Your task to perform on an android device: turn off notifications settings in the gmail app Image 0: 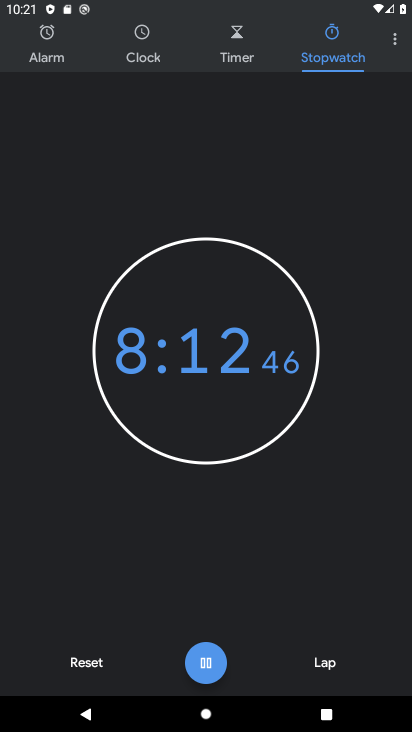
Step 0: press home button
Your task to perform on an android device: turn off notifications settings in the gmail app Image 1: 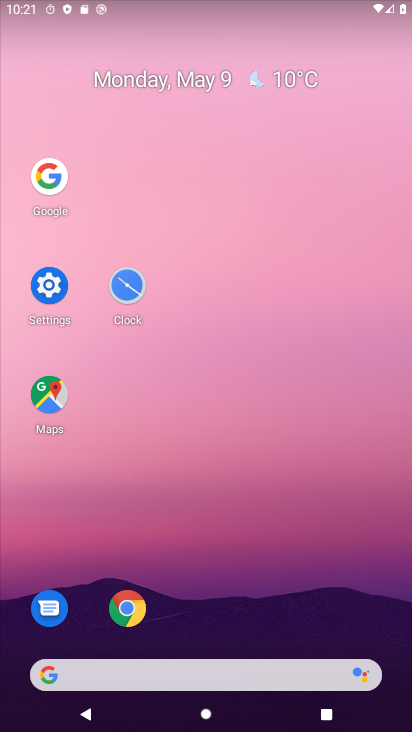
Step 1: drag from (217, 579) to (330, 152)
Your task to perform on an android device: turn off notifications settings in the gmail app Image 2: 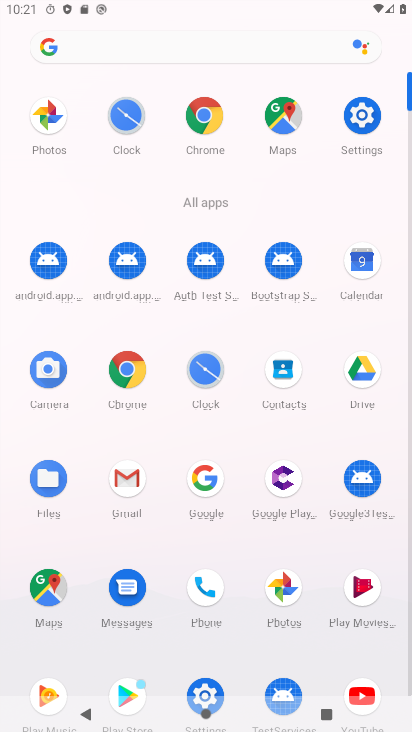
Step 2: drag from (127, 480) to (118, 198)
Your task to perform on an android device: turn off notifications settings in the gmail app Image 3: 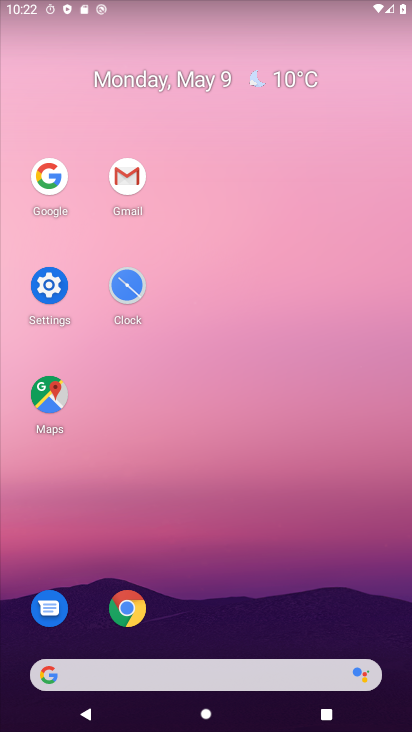
Step 3: click (132, 172)
Your task to perform on an android device: turn off notifications settings in the gmail app Image 4: 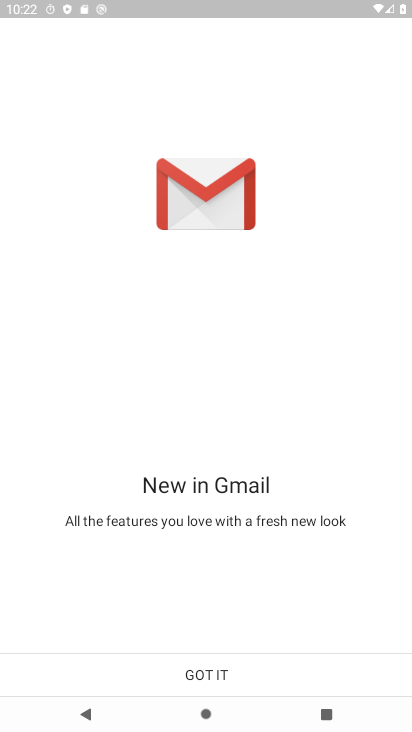
Step 4: click (213, 677)
Your task to perform on an android device: turn off notifications settings in the gmail app Image 5: 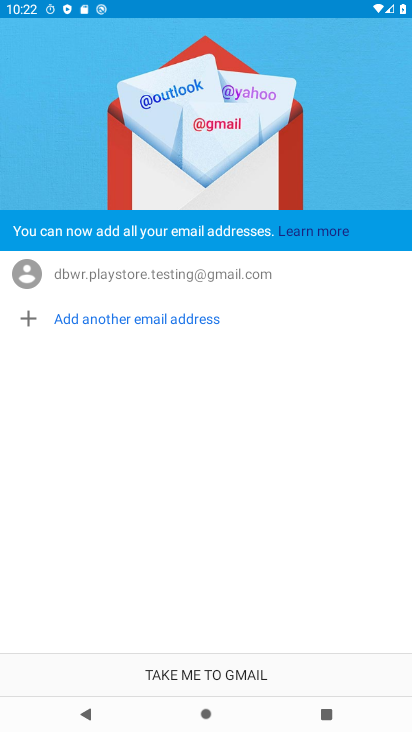
Step 5: click (181, 322)
Your task to perform on an android device: turn off notifications settings in the gmail app Image 6: 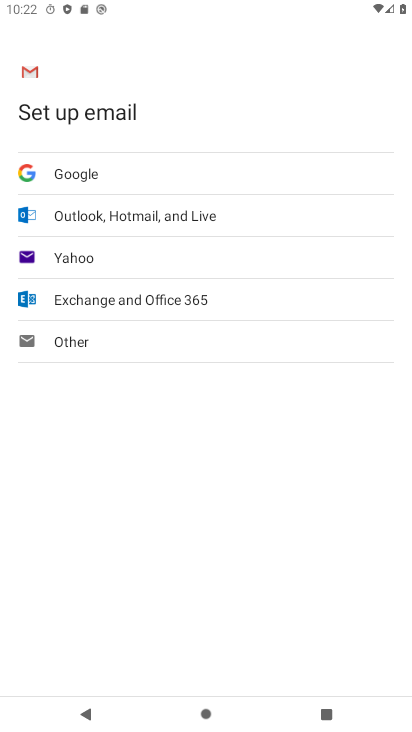
Step 6: press back button
Your task to perform on an android device: turn off notifications settings in the gmail app Image 7: 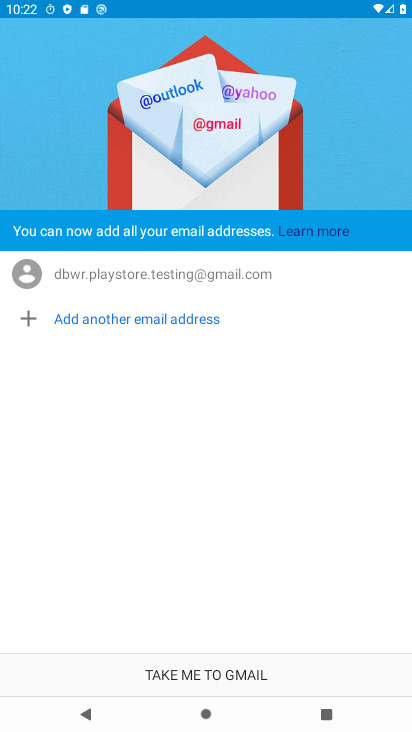
Step 7: click (197, 670)
Your task to perform on an android device: turn off notifications settings in the gmail app Image 8: 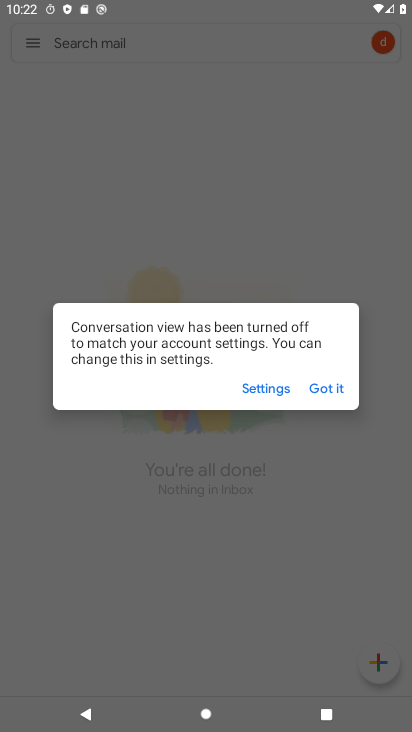
Step 8: click (325, 390)
Your task to perform on an android device: turn off notifications settings in the gmail app Image 9: 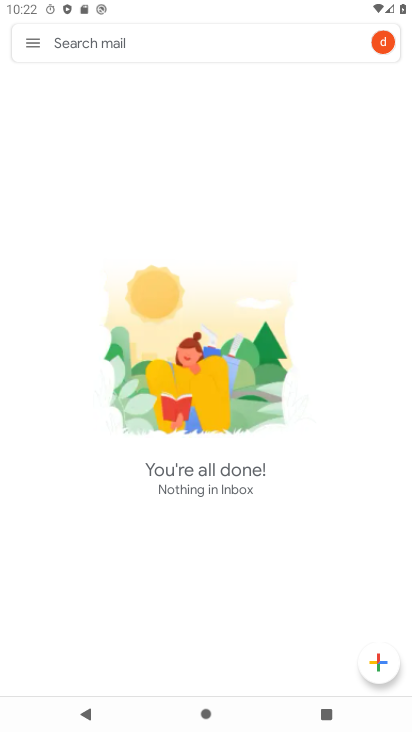
Step 9: click (36, 45)
Your task to perform on an android device: turn off notifications settings in the gmail app Image 10: 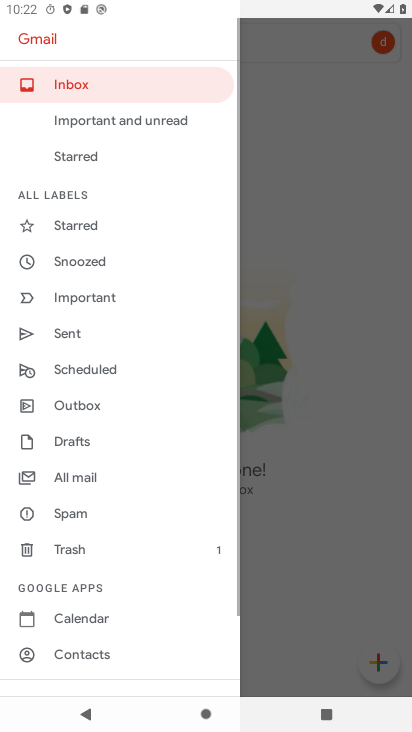
Step 10: drag from (172, 481) to (246, 30)
Your task to perform on an android device: turn off notifications settings in the gmail app Image 11: 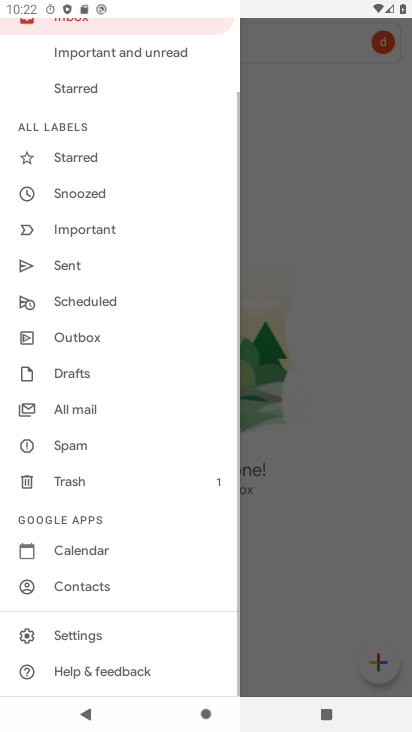
Step 11: click (88, 625)
Your task to perform on an android device: turn off notifications settings in the gmail app Image 12: 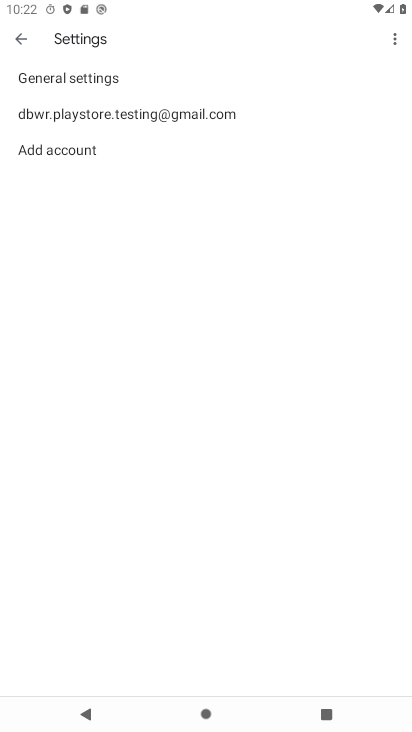
Step 12: click (194, 121)
Your task to perform on an android device: turn off notifications settings in the gmail app Image 13: 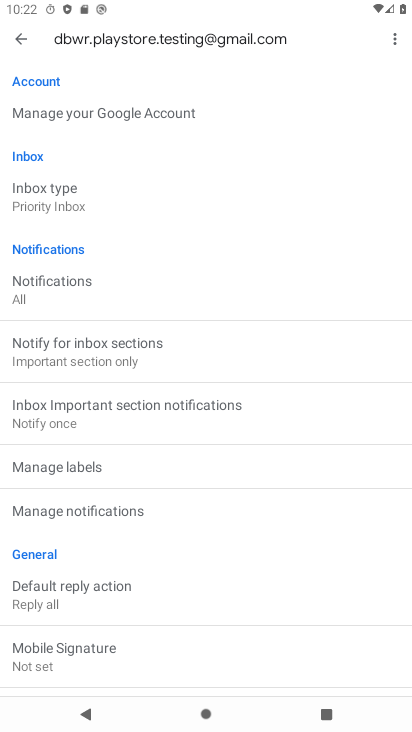
Step 13: click (145, 279)
Your task to perform on an android device: turn off notifications settings in the gmail app Image 14: 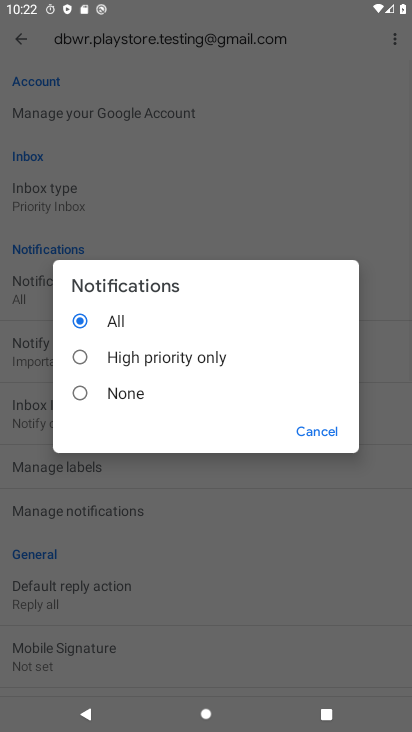
Step 14: click (113, 393)
Your task to perform on an android device: turn off notifications settings in the gmail app Image 15: 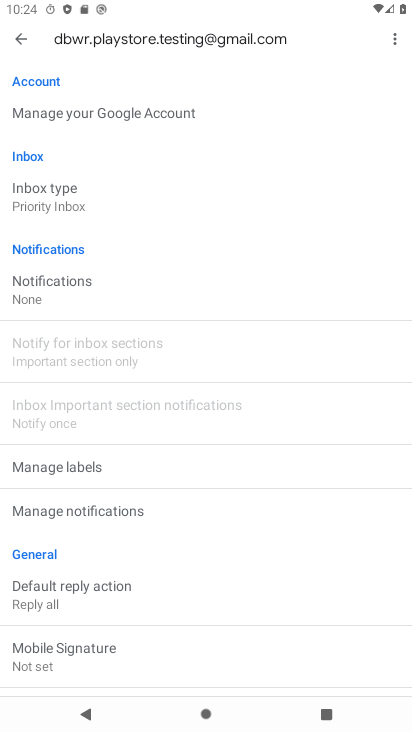
Step 15: task complete